Your task to perform on an android device: set default search engine in the chrome app Image 0: 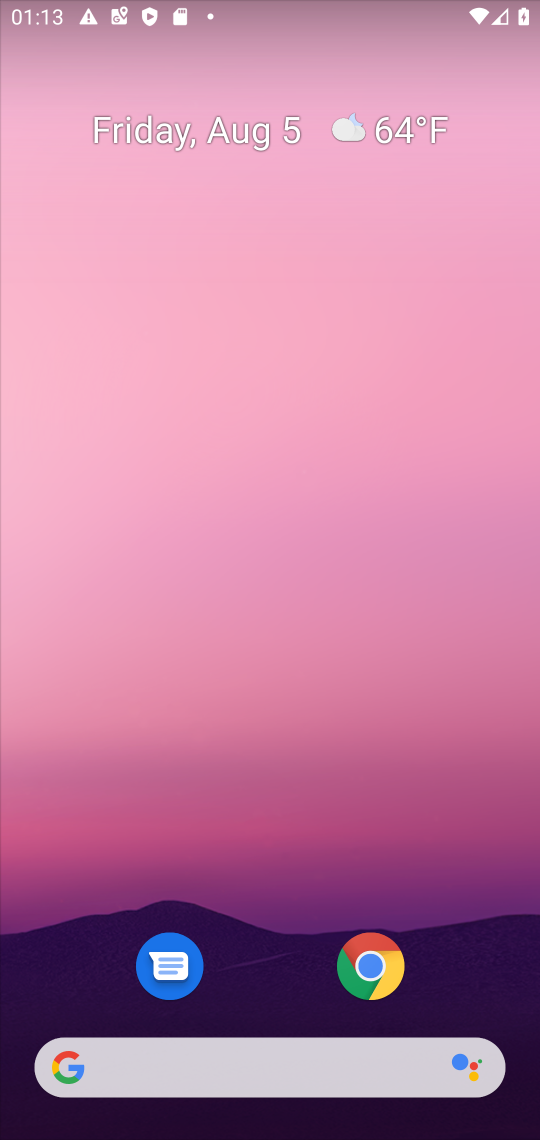
Step 0: click (359, 975)
Your task to perform on an android device: set default search engine in the chrome app Image 1: 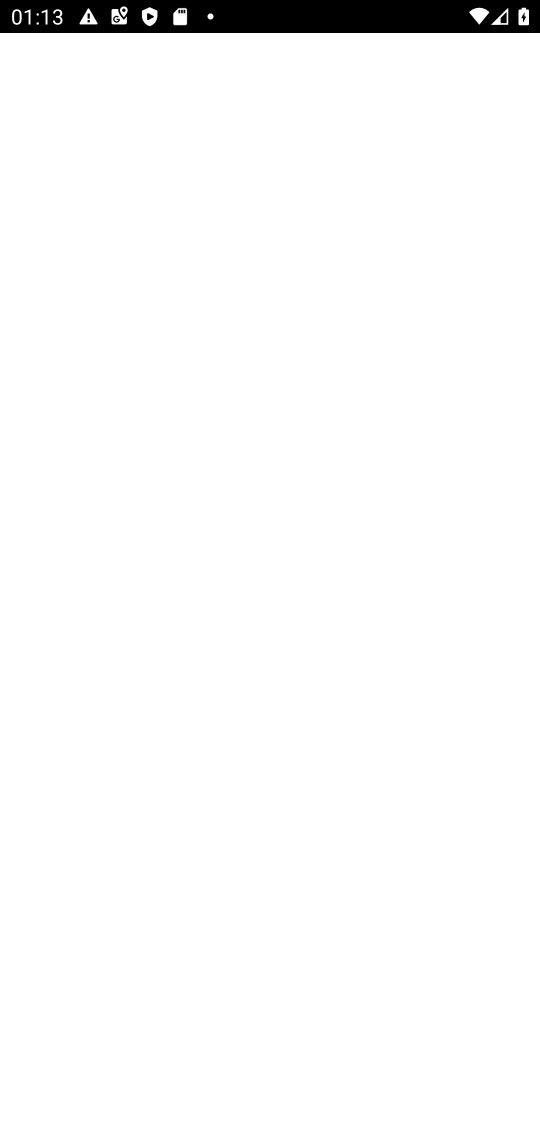
Step 1: click (359, 975)
Your task to perform on an android device: set default search engine in the chrome app Image 2: 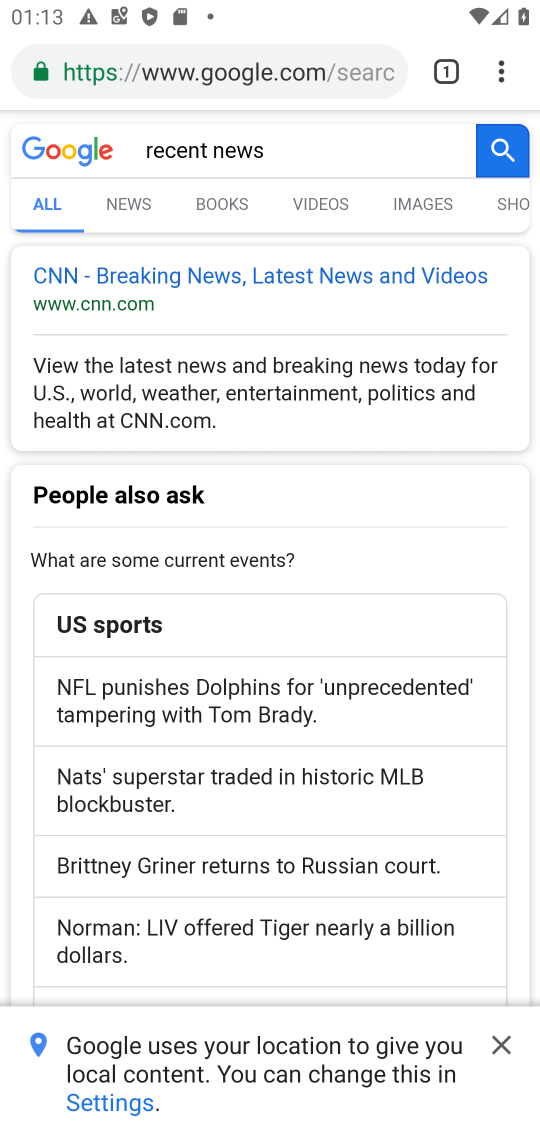
Step 2: press back button
Your task to perform on an android device: set default search engine in the chrome app Image 3: 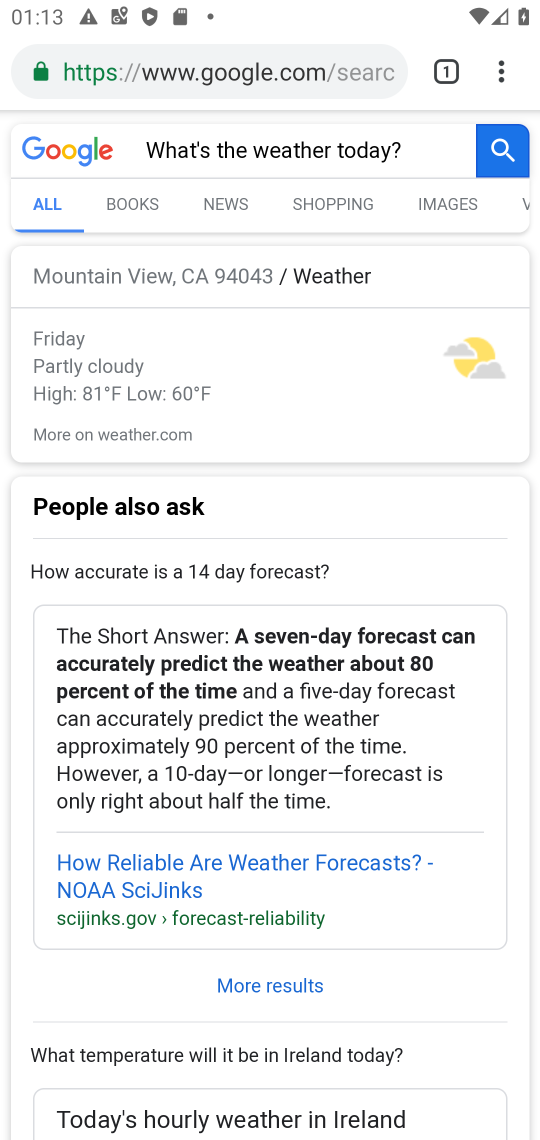
Step 3: click (498, 71)
Your task to perform on an android device: set default search engine in the chrome app Image 4: 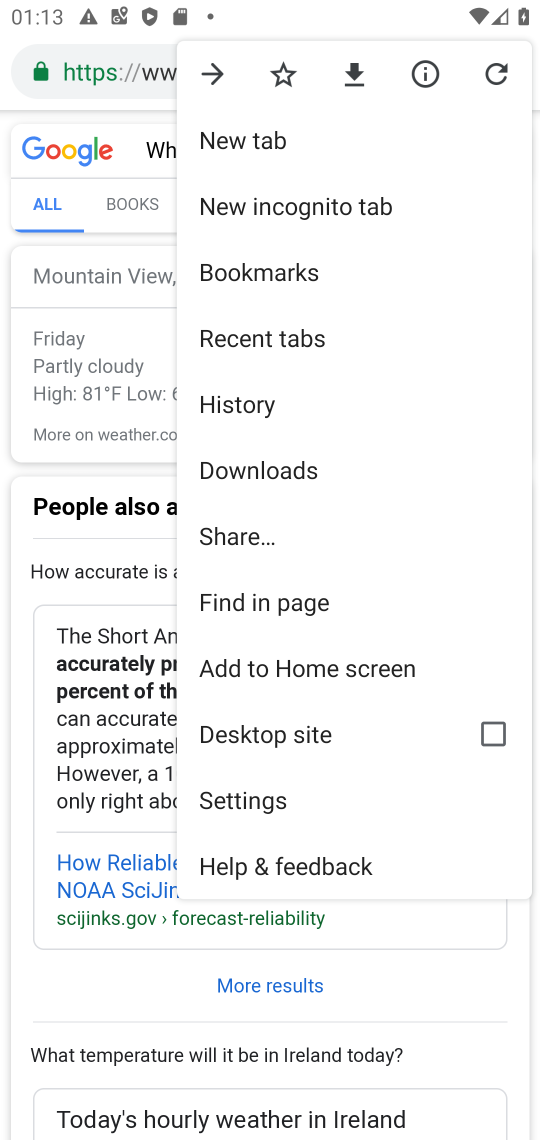
Step 4: click (265, 793)
Your task to perform on an android device: set default search engine in the chrome app Image 5: 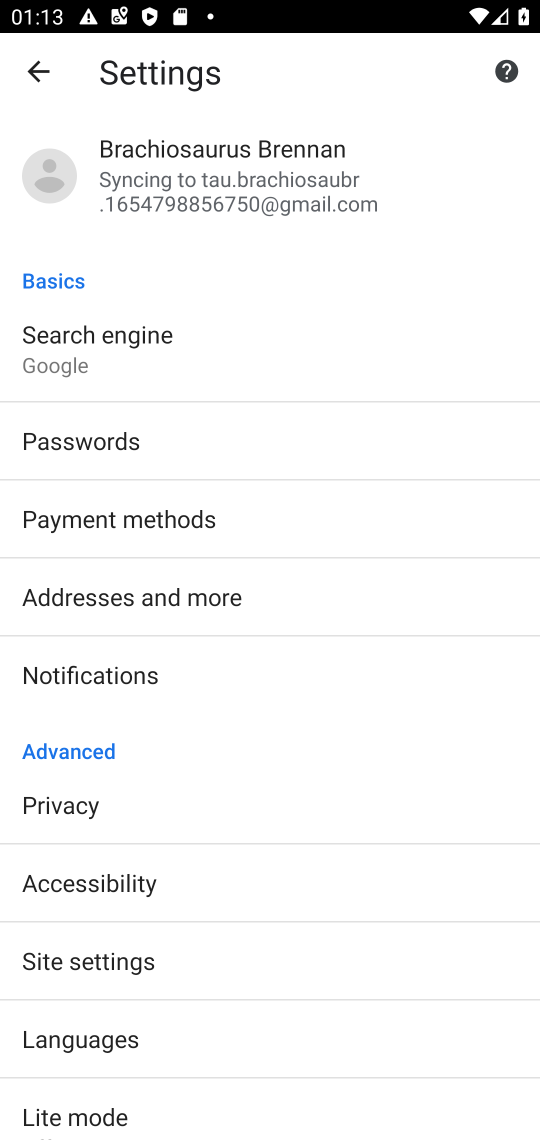
Step 5: click (123, 352)
Your task to perform on an android device: set default search engine in the chrome app Image 6: 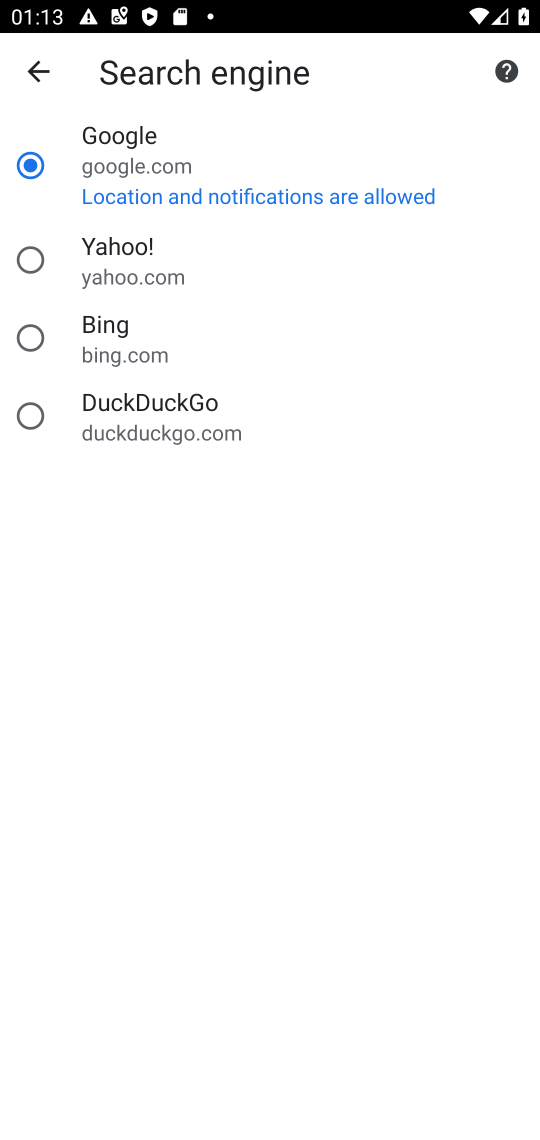
Step 6: task complete